Your task to perform on an android device: turn on javascript in the chrome app Image 0: 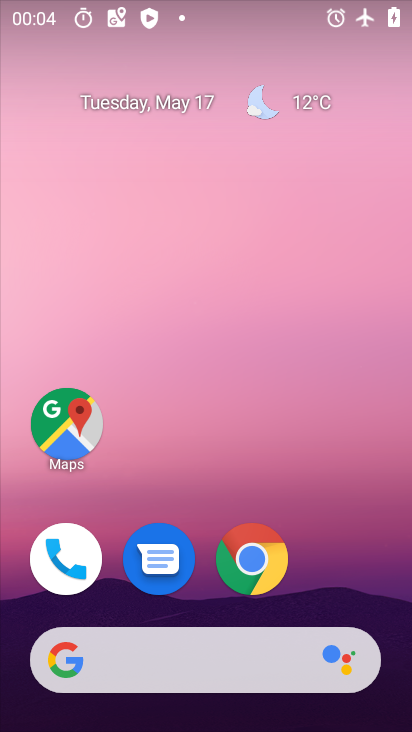
Step 0: click (255, 556)
Your task to perform on an android device: turn on javascript in the chrome app Image 1: 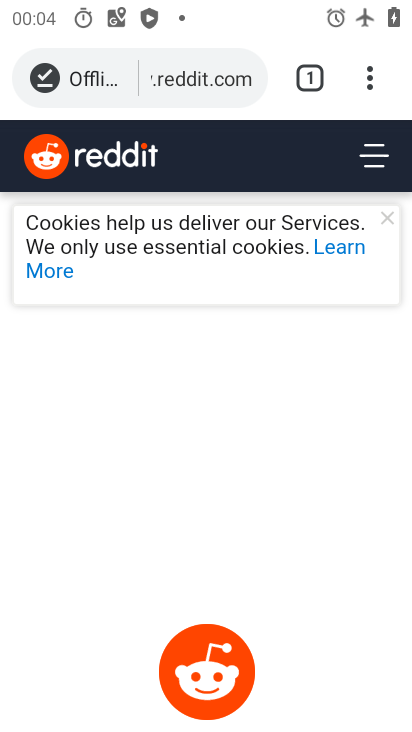
Step 1: drag from (378, 76) to (232, 608)
Your task to perform on an android device: turn on javascript in the chrome app Image 2: 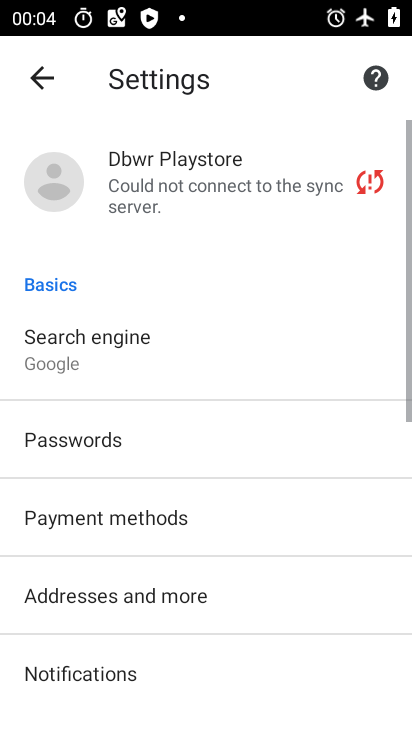
Step 2: drag from (230, 580) to (293, 4)
Your task to perform on an android device: turn on javascript in the chrome app Image 3: 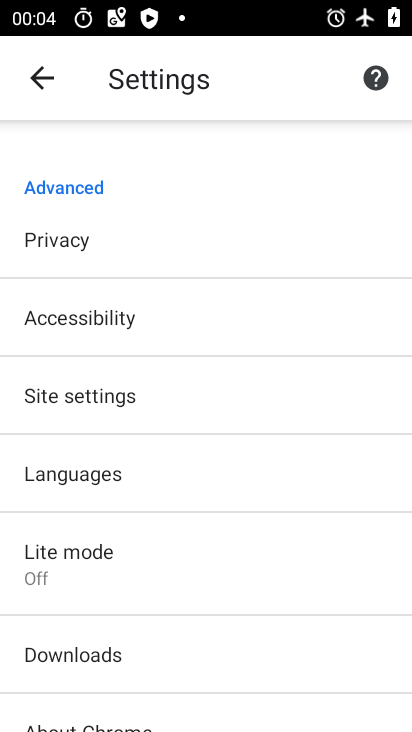
Step 3: drag from (285, 580) to (351, 300)
Your task to perform on an android device: turn on javascript in the chrome app Image 4: 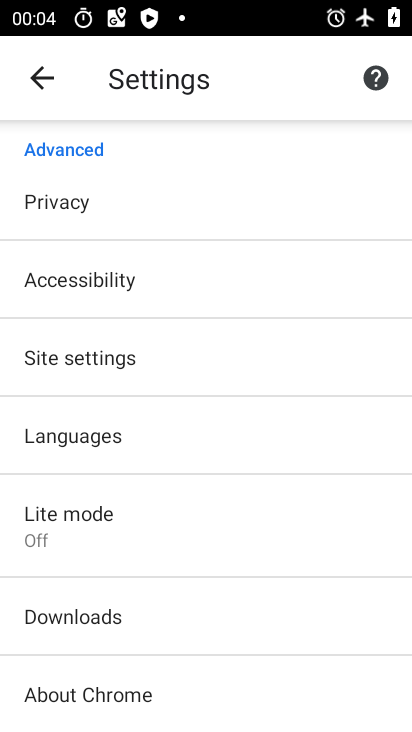
Step 4: click (76, 351)
Your task to perform on an android device: turn on javascript in the chrome app Image 5: 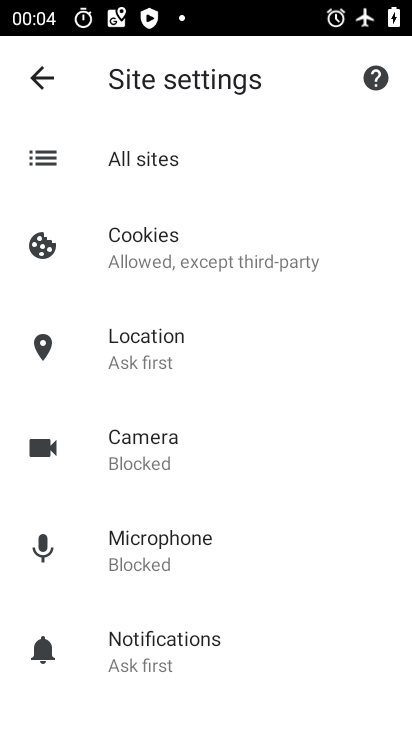
Step 5: drag from (259, 588) to (292, 211)
Your task to perform on an android device: turn on javascript in the chrome app Image 6: 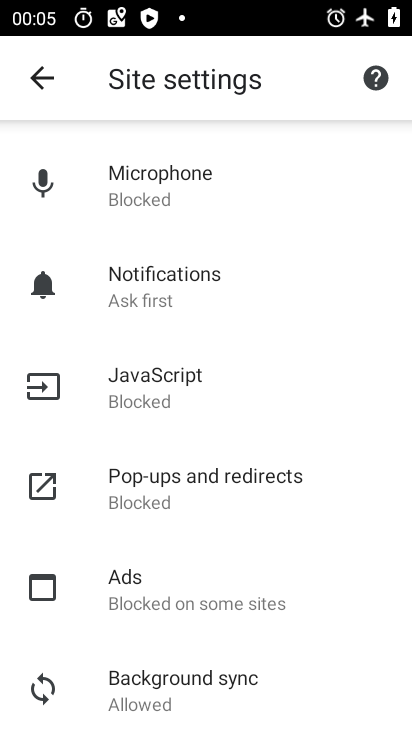
Step 6: click (191, 387)
Your task to perform on an android device: turn on javascript in the chrome app Image 7: 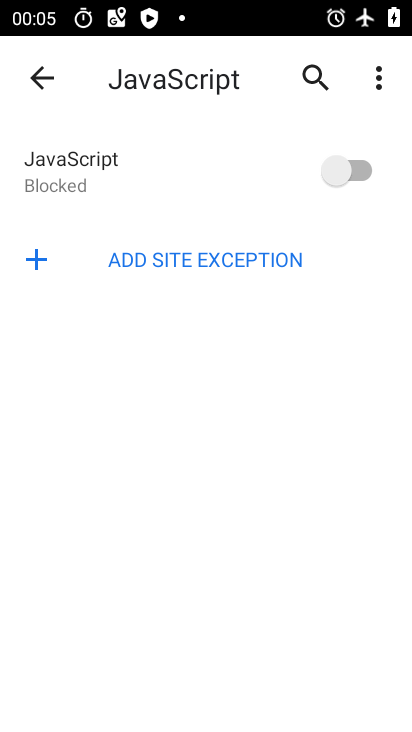
Step 7: click (344, 172)
Your task to perform on an android device: turn on javascript in the chrome app Image 8: 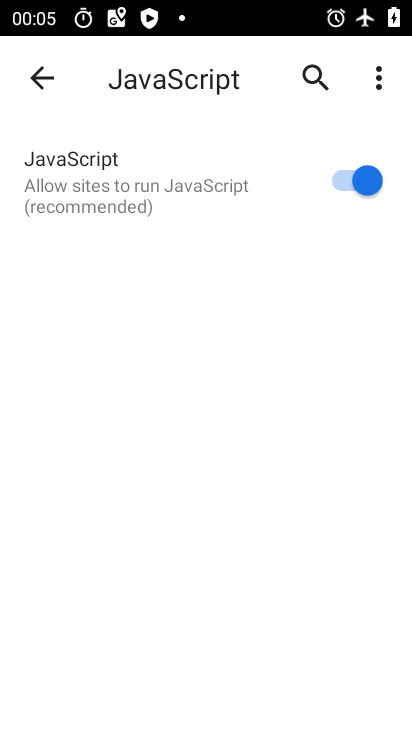
Step 8: task complete